Your task to perform on an android device: Open battery settings Image 0: 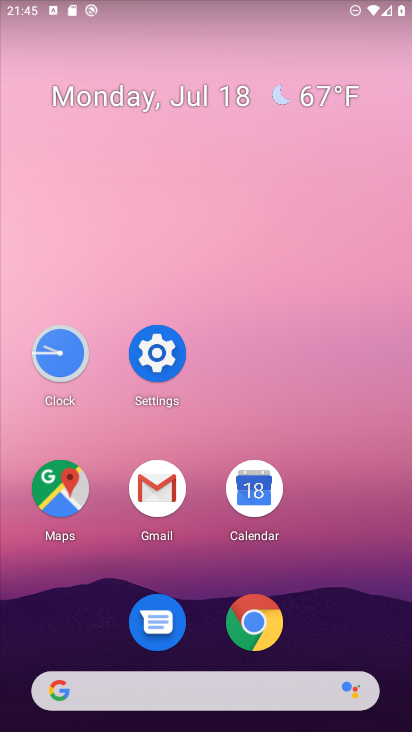
Step 0: click (157, 351)
Your task to perform on an android device: Open battery settings Image 1: 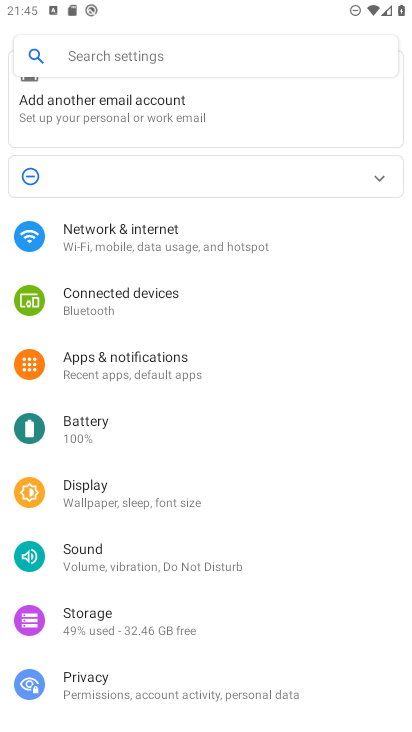
Step 1: click (78, 413)
Your task to perform on an android device: Open battery settings Image 2: 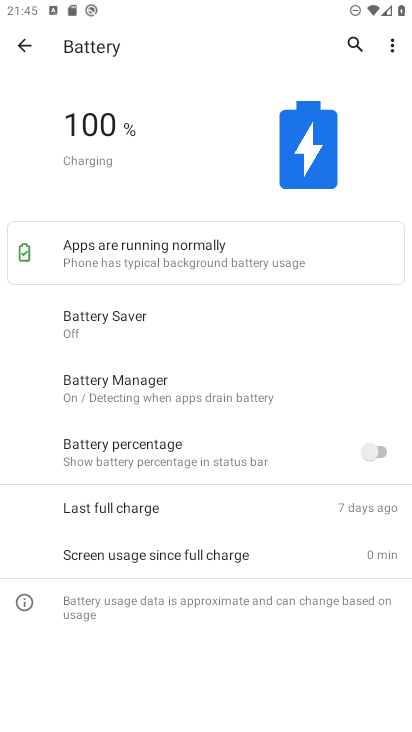
Step 2: task complete